Your task to perform on an android device: turn on wifi Image 0: 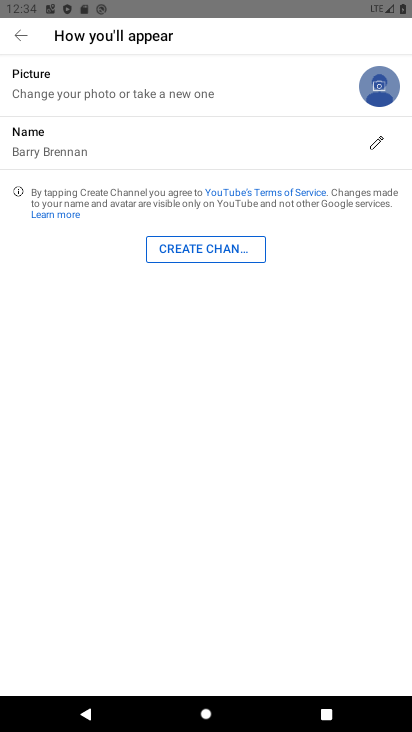
Step 0: press back button
Your task to perform on an android device: turn on wifi Image 1: 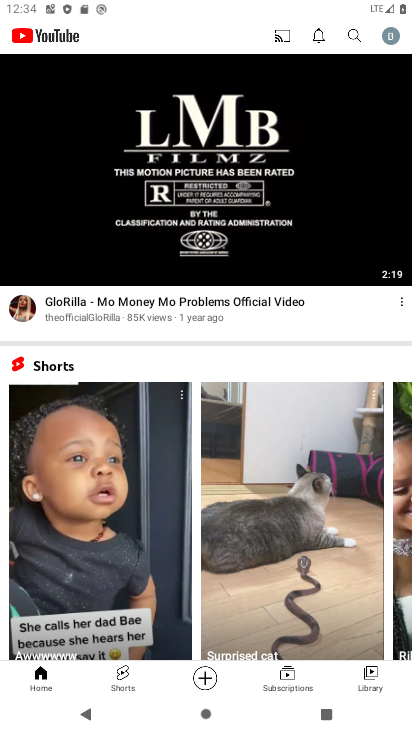
Step 1: press back button
Your task to perform on an android device: turn on wifi Image 2: 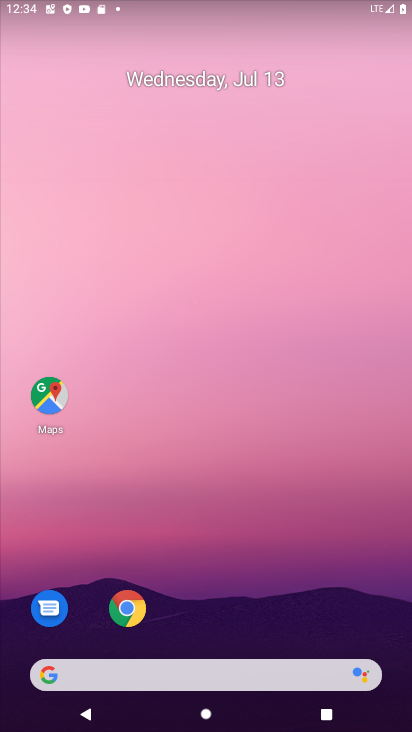
Step 2: drag from (123, 10) to (234, 542)
Your task to perform on an android device: turn on wifi Image 3: 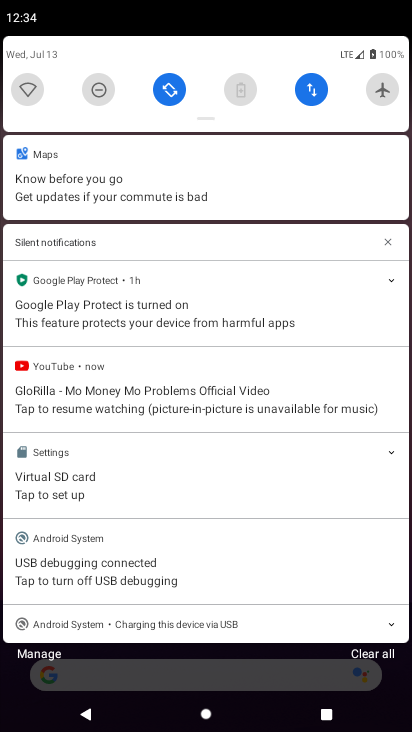
Step 3: click (42, 99)
Your task to perform on an android device: turn on wifi Image 4: 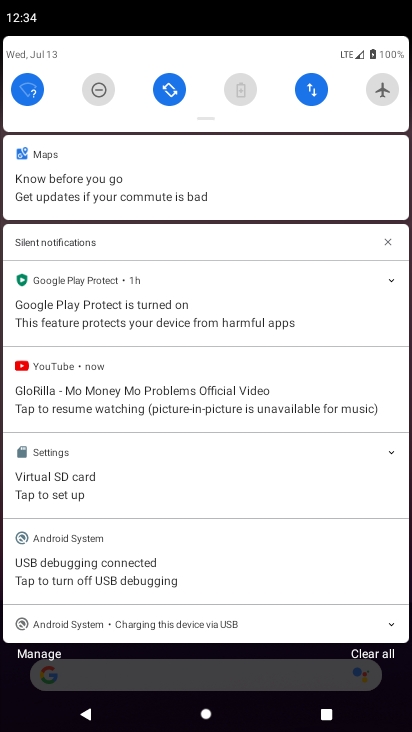
Step 4: task complete